Your task to perform on an android device: What's the weather? Image 0: 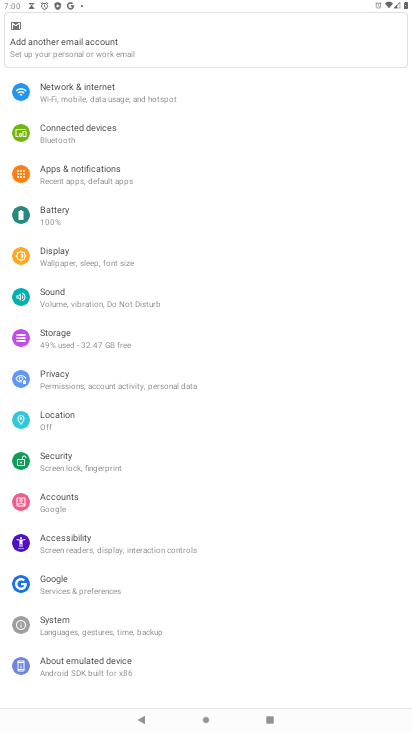
Step 0: press home button
Your task to perform on an android device: What's the weather? Image 1: 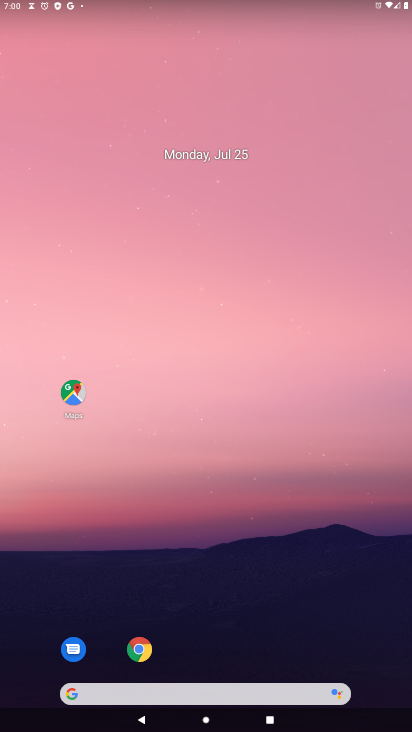
Step 1: drag from (317, 680) to (312, 133)
Your task to perform on an android device: What's the weather? Image 2: 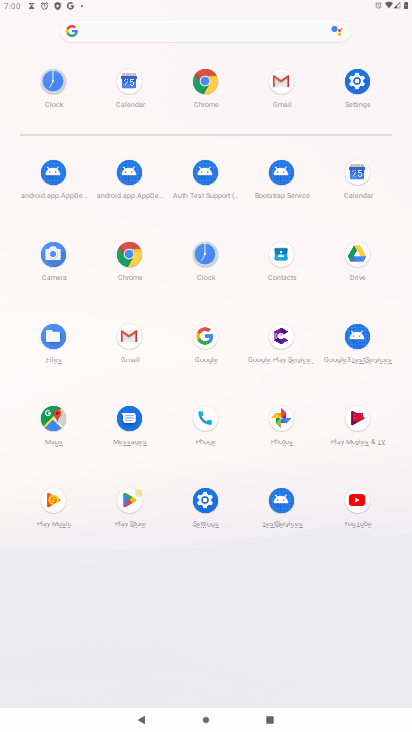
Step 2: click (125, 255)
Your task to perform on an android device: What's the weather? Image 3: 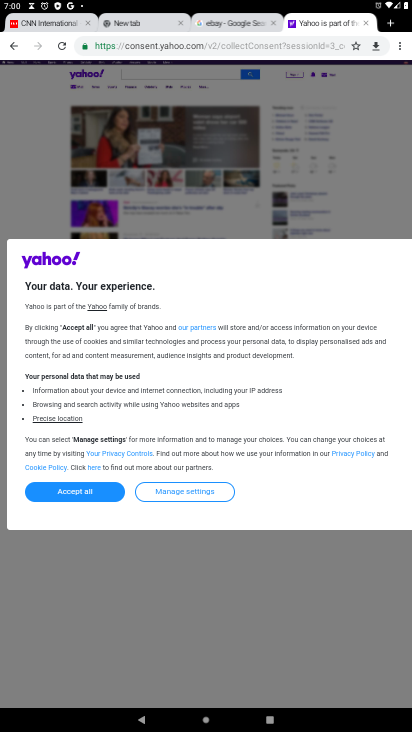
Step 3: click (185, 45)
Your task to perform on an android device: What's the weather? Image 4: 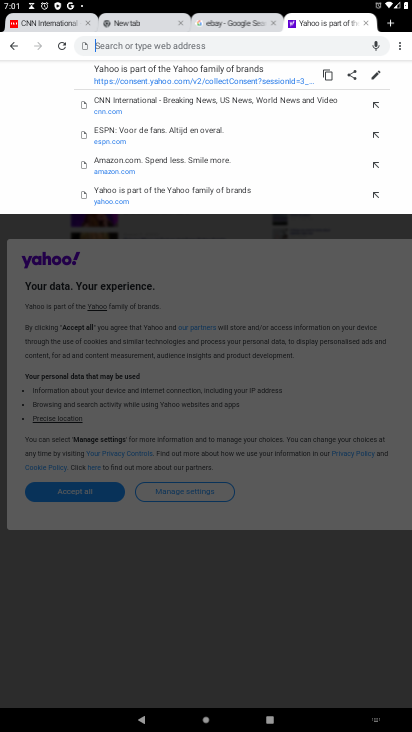
Step 4: type "whats the weather"
Your task to perform on an android device: What's the weather? Image 5: 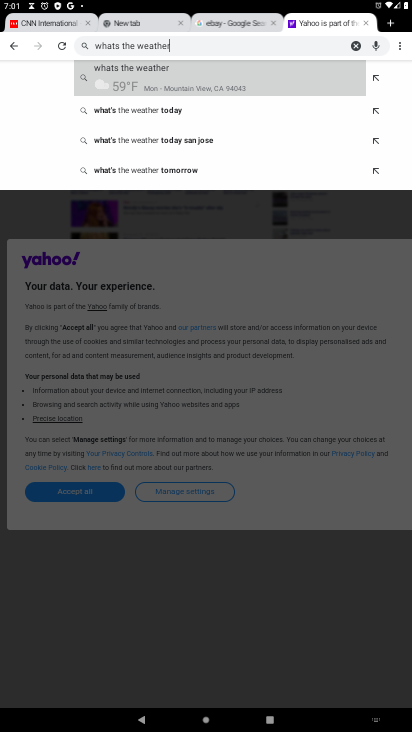
Step 5: click (141, 67)
Your task to perform on an android device: What's the weather? Image 6: 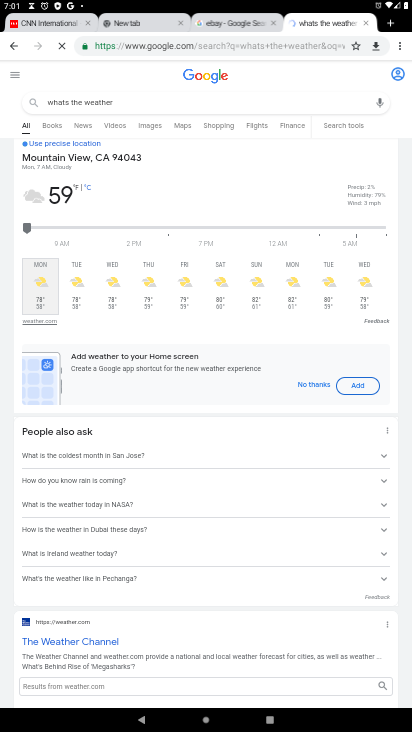
Step 6: task complete